Your task to perform on an android device: Search for flights from San Diego to Seattle Image 0: 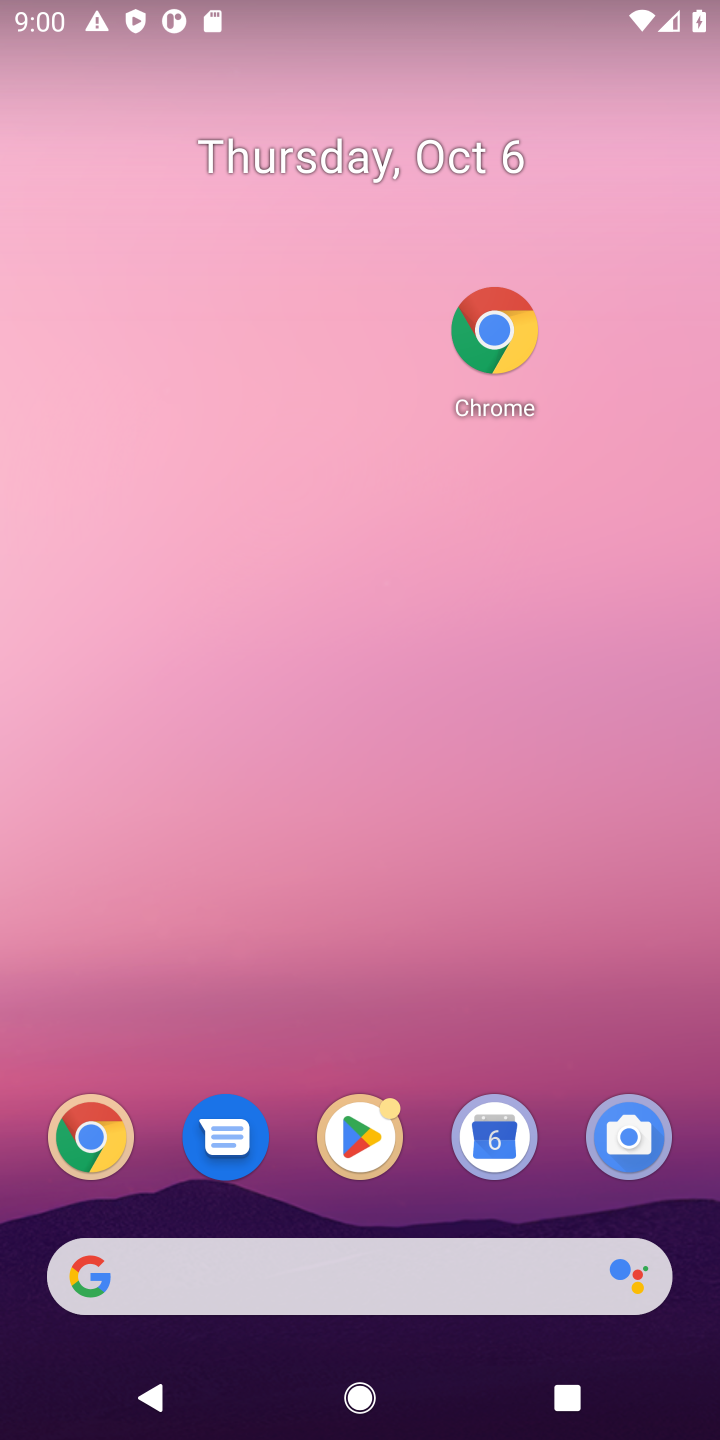
Step 0: click (513, 333)
Your task to perform on an android device: Search for flights from San Diego to Seattle Image 1: 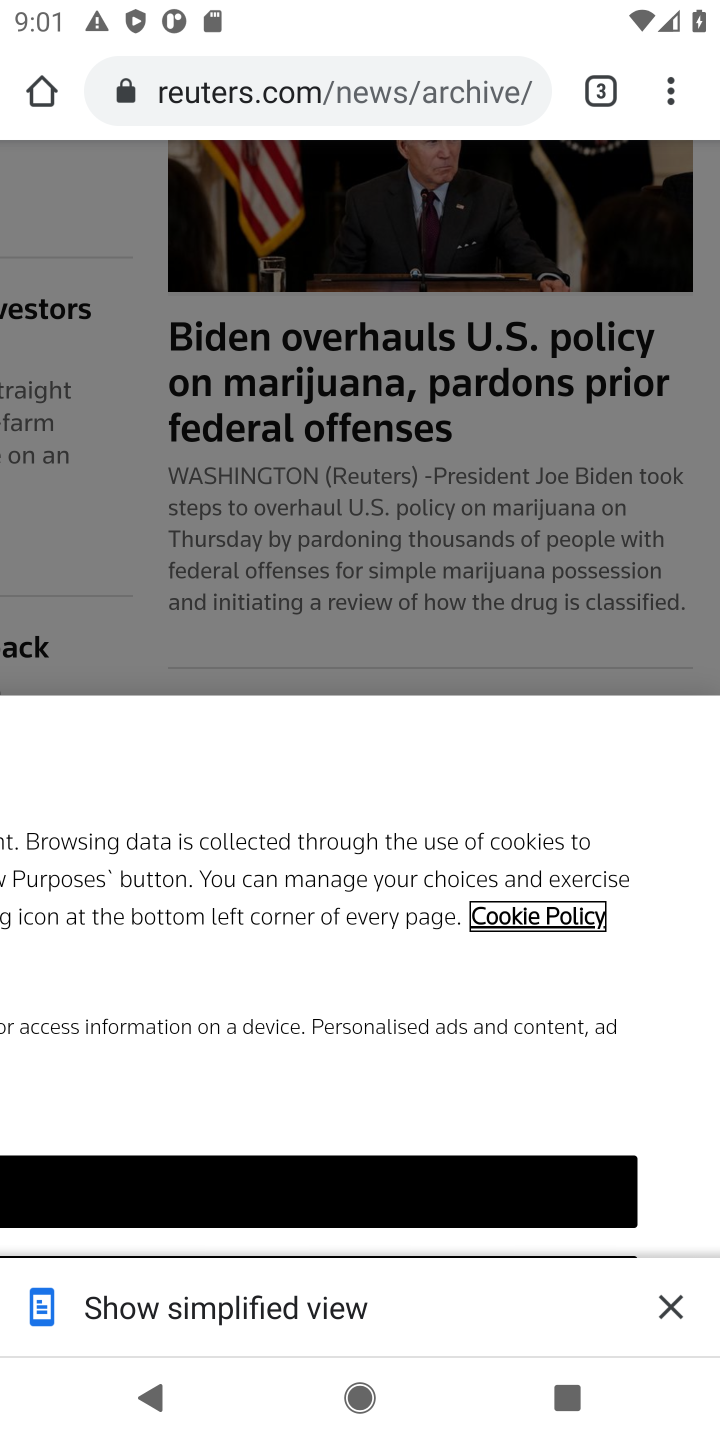
Step 1: click (413, 108)
Your task to perform on an android device: Search for flights from San Diego to Seattle Image 2: 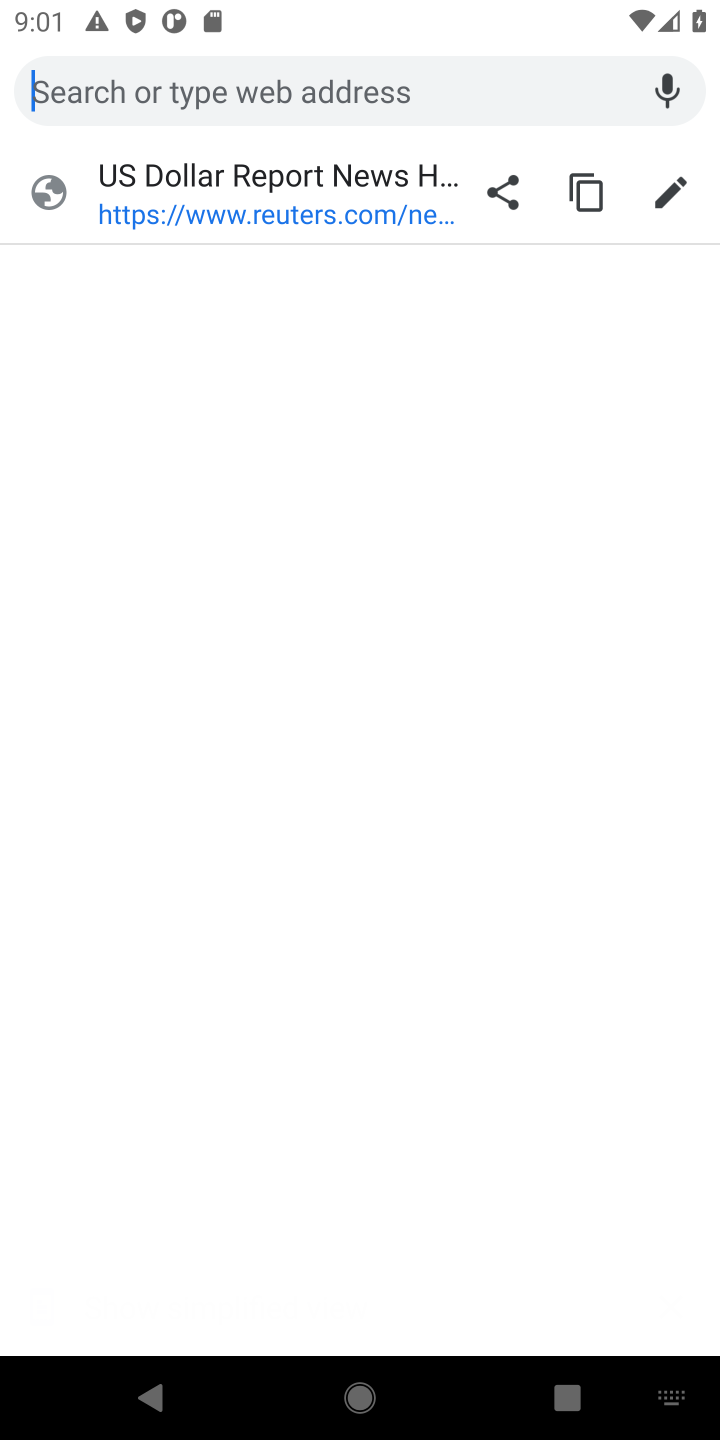
Step 2: type "flights from san diego to seattle"
Your task to perform on an android device: Search for flights from San Diego to Seattle Image 3: 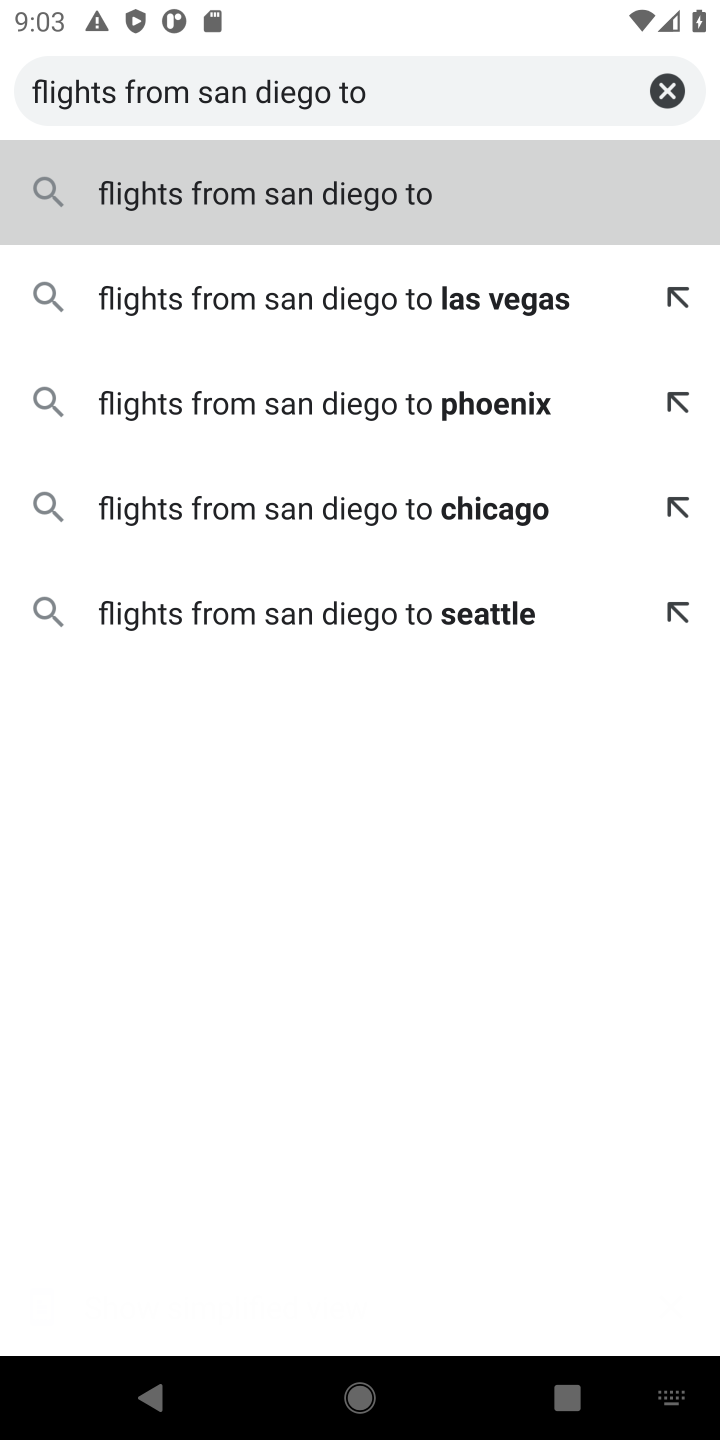
Step 3: type " seattle"
Your task to perform on an android device: Search for flights from San Diego to Seattle Image 4: 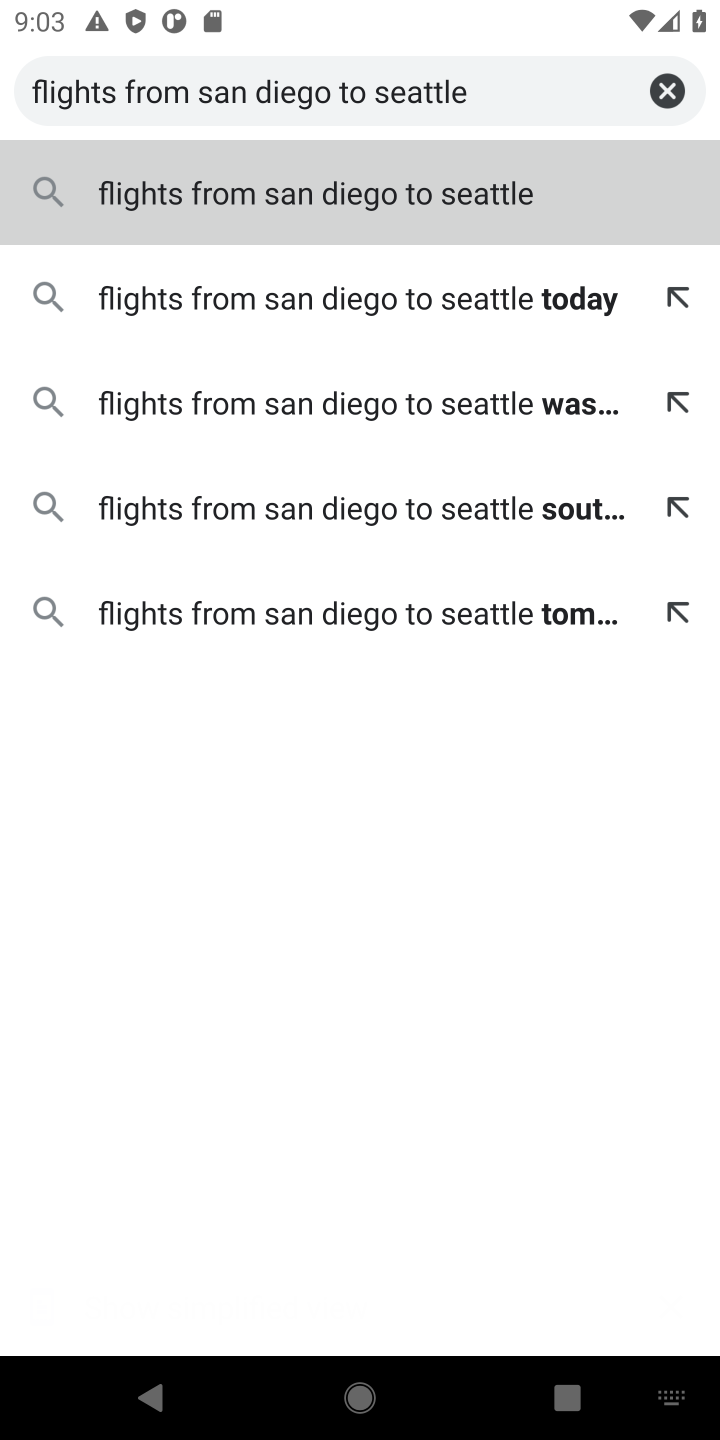
Step 4: click (354, 198)
Your task to perform on an android device: Search for flights from San Diego to Seattle Image 5: 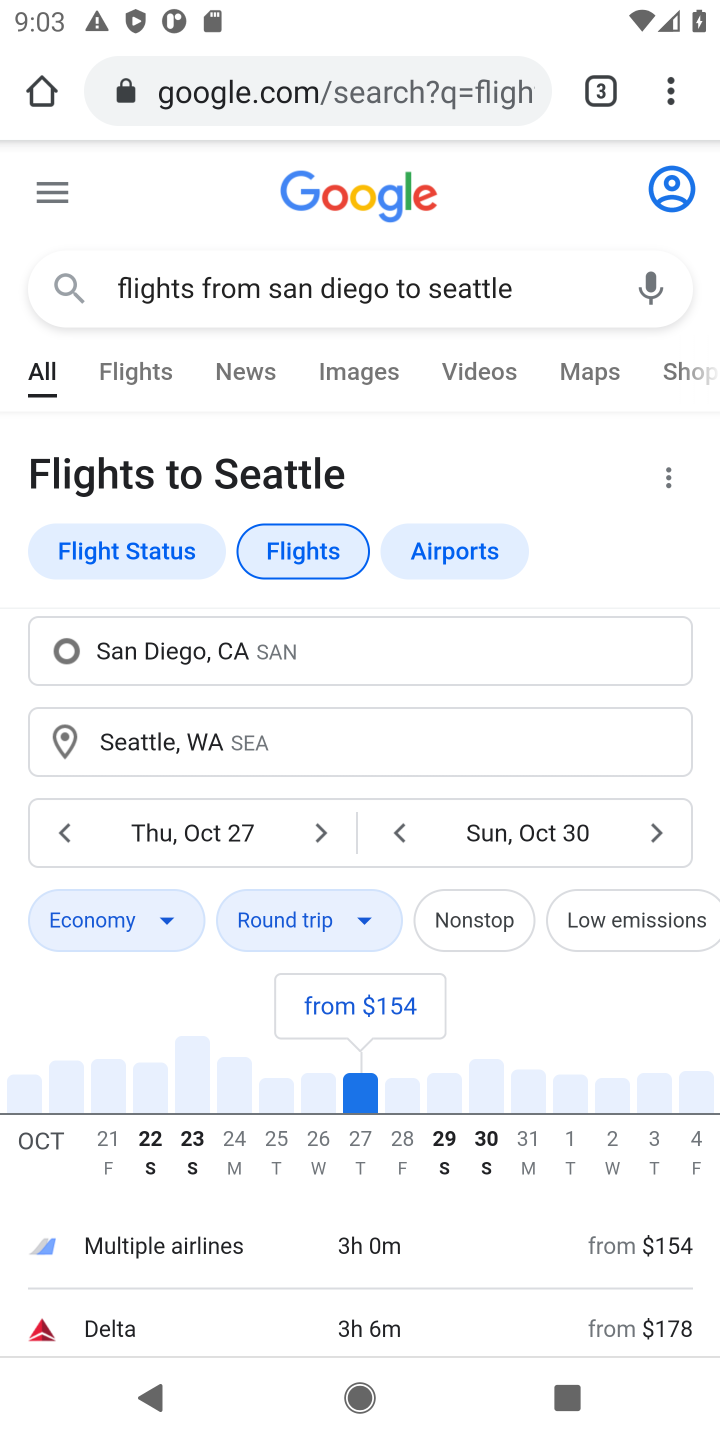
Step 5: task complete